Your task to perform on an android device: turn on the 12-hour format for clock Image 0: 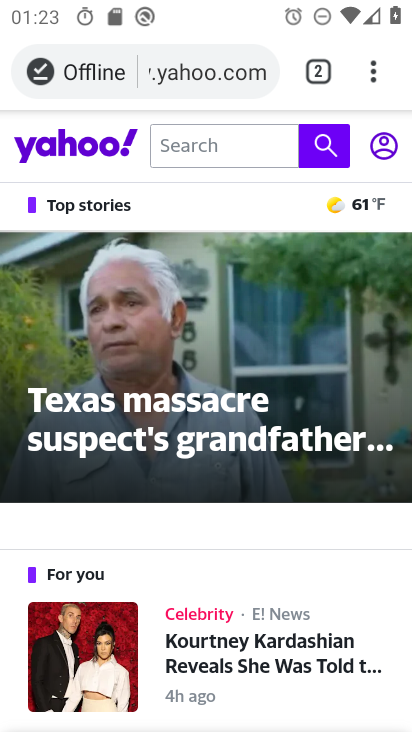
Step 0: press home button
Your task to perform on an android device: turn on the 12-hour format for clock Image 1: 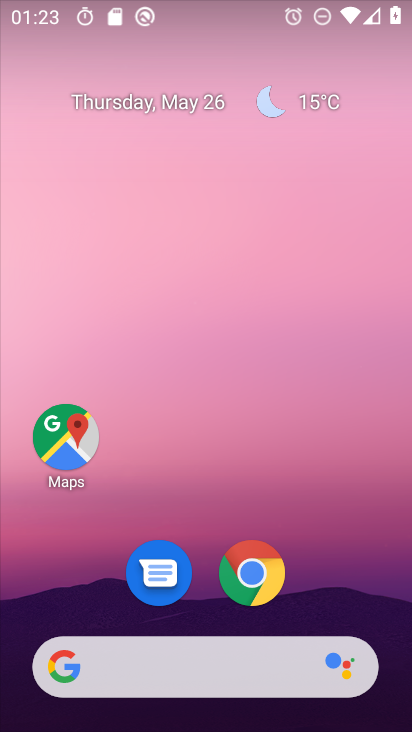
Step 1: drag from (364, 610) to (172, 10)
Your task to perform on an android device: turn on the 12-hour format for clock Image 2: 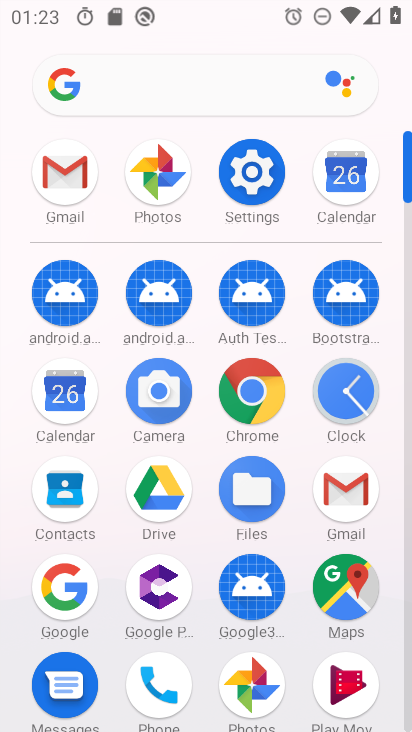
Step 2: click (353, 394)
Your task to perform on an android device: turn on the 12-hour format for clock Image 3: 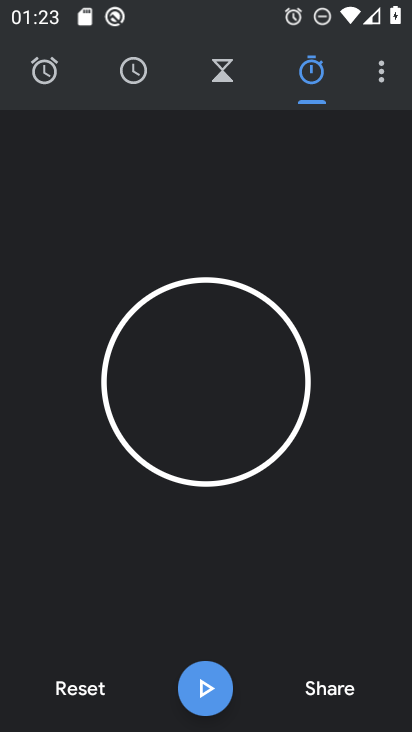
Step 3: click (386, 74)
Your task to perform on an android device: turn on the 12-hour format for clock Image 4: 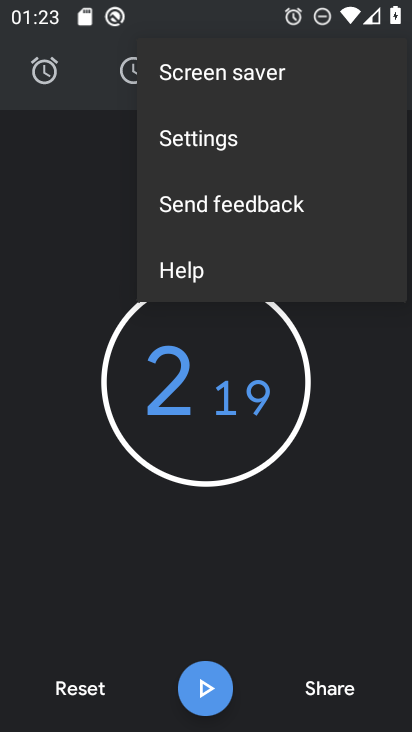
Step 4: click (222, 144)
Your task to perform on an android device: turn on the 12-hour format for clock Image 5: 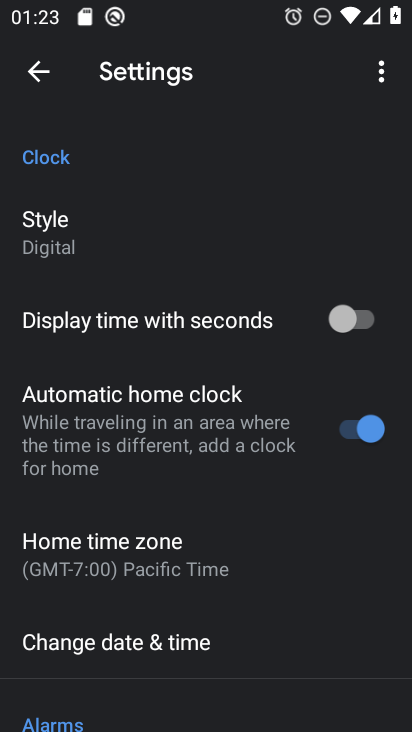
Step 5: click (124, 643)
Your task to perform on an android device: turn on the 12-hour format for clock Image 6: 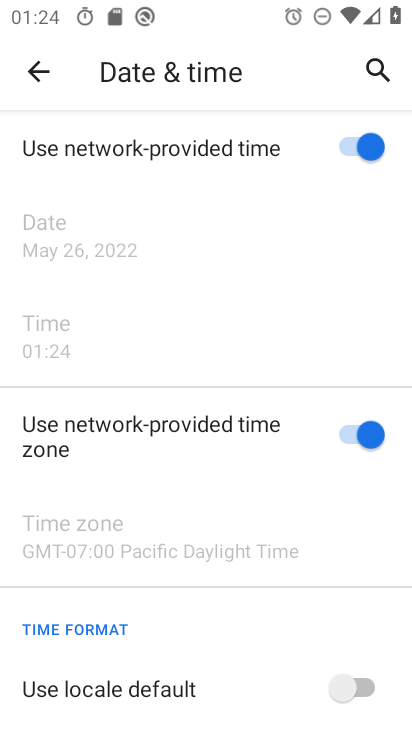
Step 6: drag from (158, 625) to (196, 186)
Your task to perform on an android device: turn on the 12-hour format for clock Image 7: 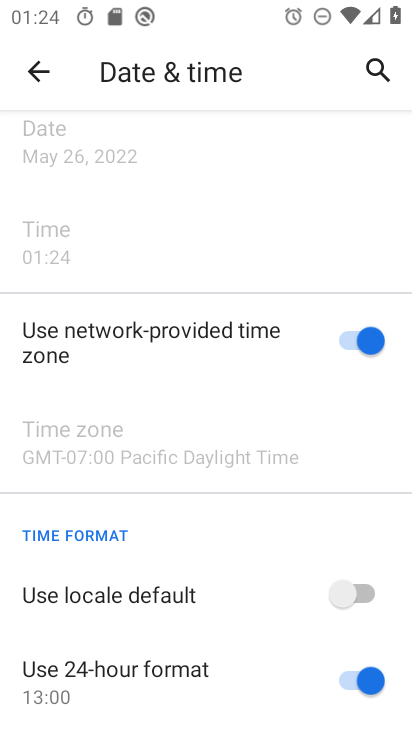
Step 7: click (369, 680)
Your task to perform on an android device: turn on the 12-hour format for clock Image 8: 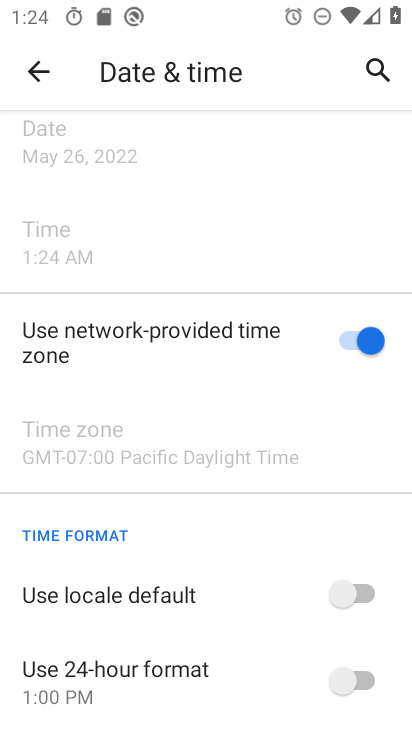
Step 8: click (334, 581)
Your task to perform on an android device: turn on the 12-hour format for clock Image 9: 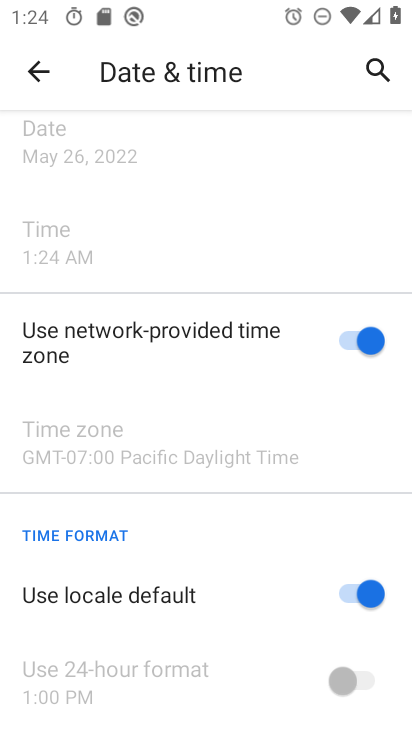
Step 9: task complete